Your task to perform on an android device: turn off smart reply in the gmail app Image 0: 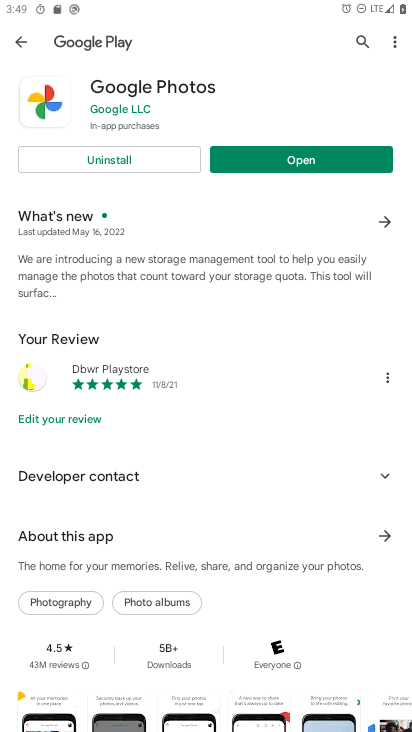
Step 0: press home button
Your task to perform on an android device: turn off smart reply in the gmail app Image 1: 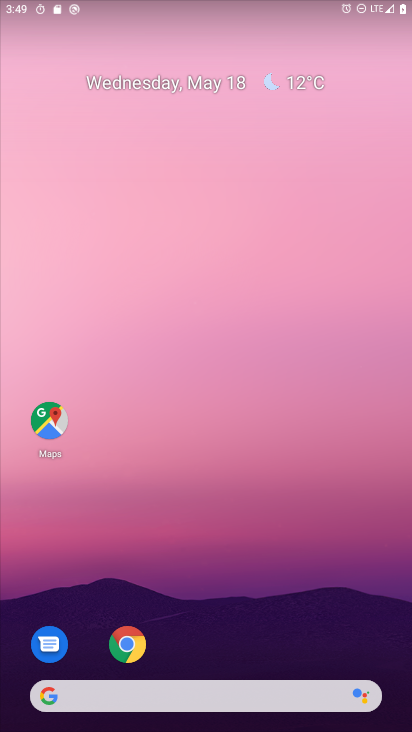
Step 1: drag from (373, 407) to (346, 144)
Your task to perform on an android device: turn off smart reply in the gmail app Image 2: 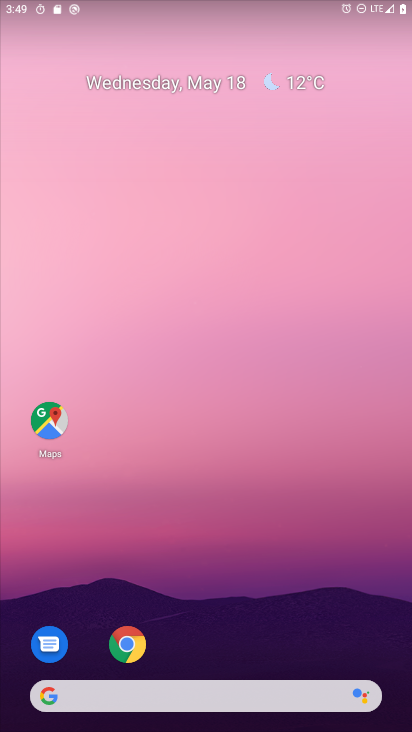
Step 2: drag from (399, 697) to (363, 134)
Your task to perform on an android device: turn off smart reply in the gmail app Image 3: 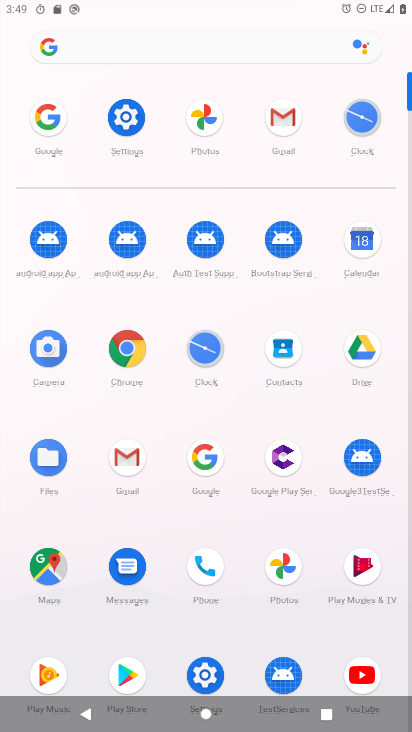
Step 3: click (266, 116)
Your task to perform on an android device: turn off smart reply in the gmail app Image 4: 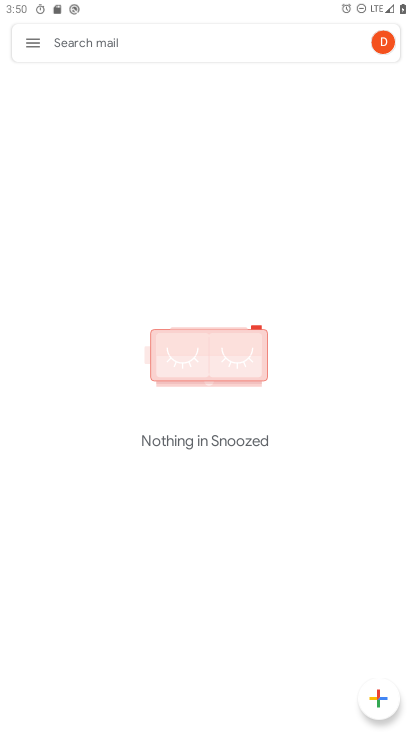
Step 4: click (33, 43)
Your task to perform on an android device: turn off smart reply in the gmail app Image 5: 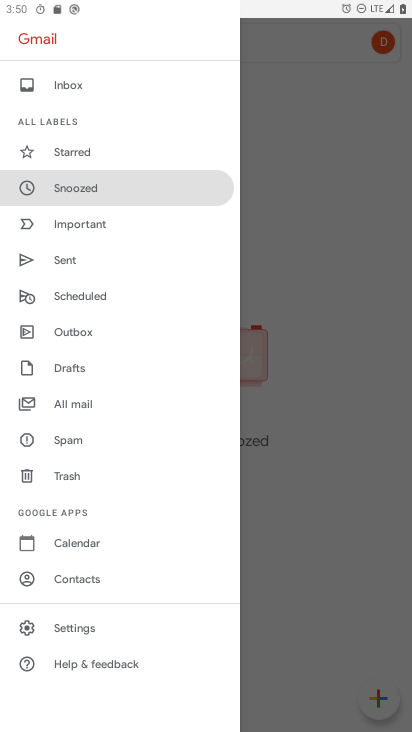
Step 5: click (80, 625)
Your task to perform on an android device: turn off smart reply in the gmail app Image 6: 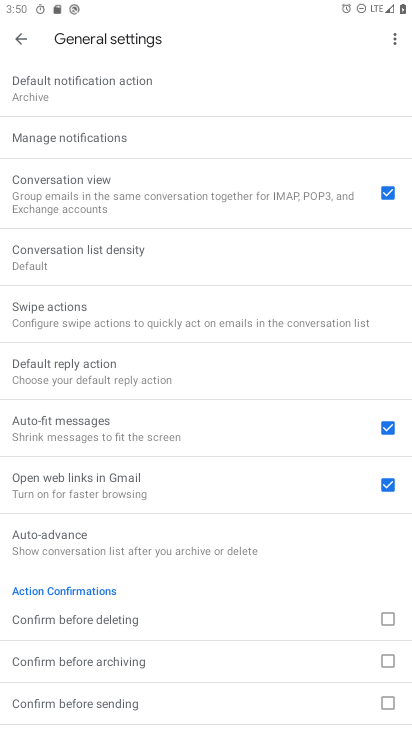
Step 6: click (15, 42)
Your task to perform on an android device: turn off smart reply in the gmail app Image 7: 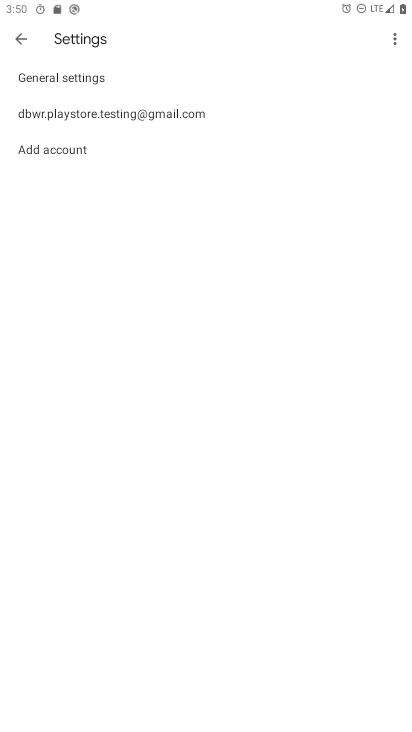
Step 7: click (18, 37)
Your task to perform on an android device: turn off smart reply in the gmail app Image 8: 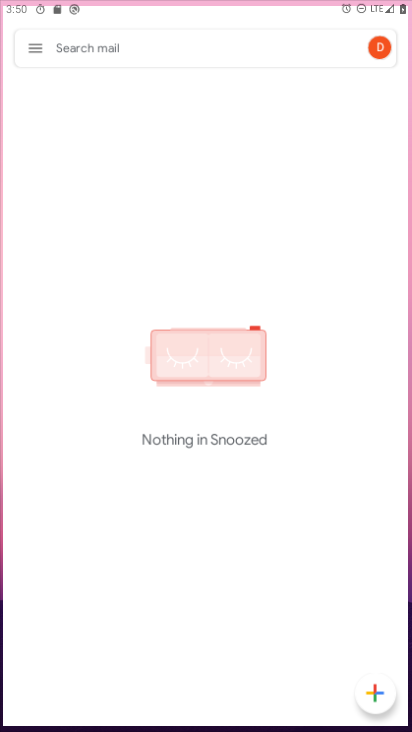
Step 8: click (49, 115)
Your task to perform on an android device: turn off smart reply in the gmail app Image 9: 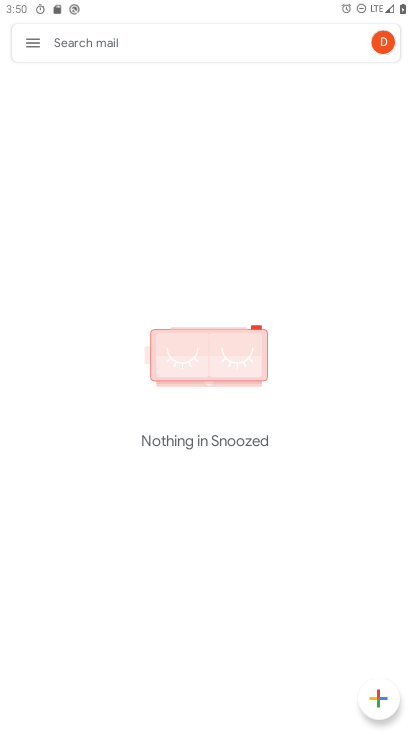
Step 9: click (31, 42)
Your task to perform on an android device: turn off smart reply in the gmail app Image 10: 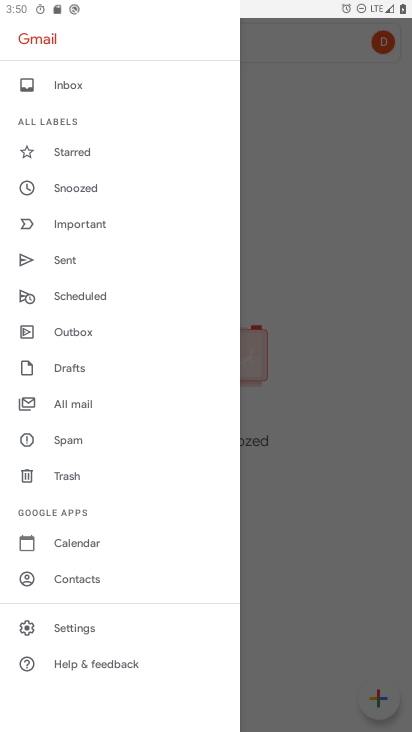
Step 10: click (70, 631)
Your task to perform on an android device: turn off smart reply in the gmail app Image 11: 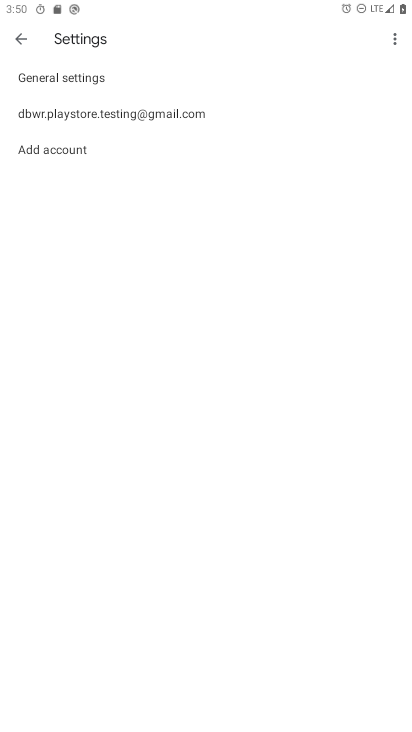
Step 11: click (72, 112)
Your task to perform on an android device: turn off smart reply in the gmail app Image 12: 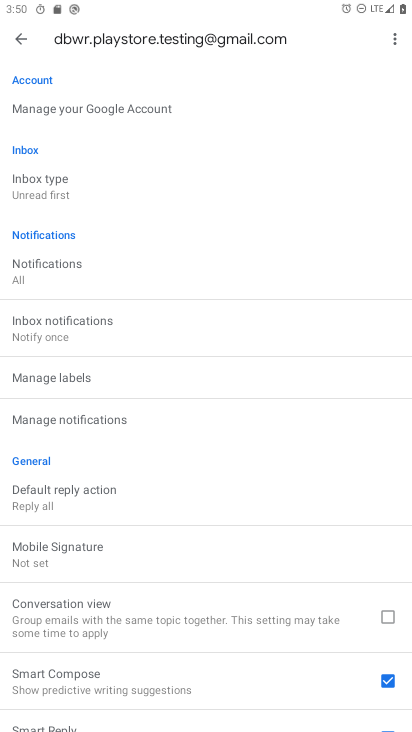
Step 12: drag from (163, 447) to (163, 413)
Your task to perform on an android device: turn off smart reply in the gmail app Image 13: 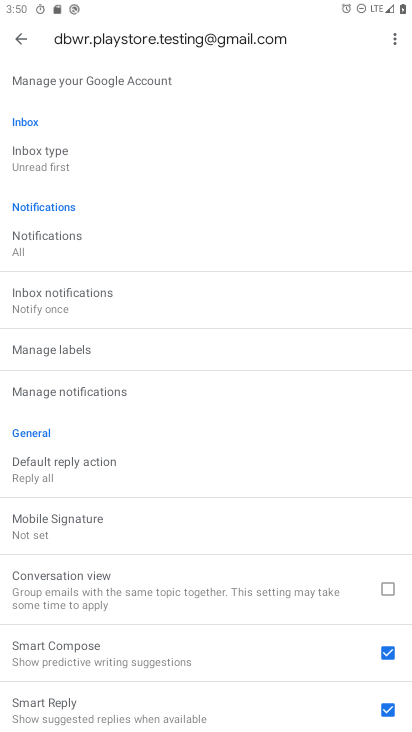
Step 13: click (382, 707)
Your task to perform on an android device: turn off smart reply in the gmail app Image 14: 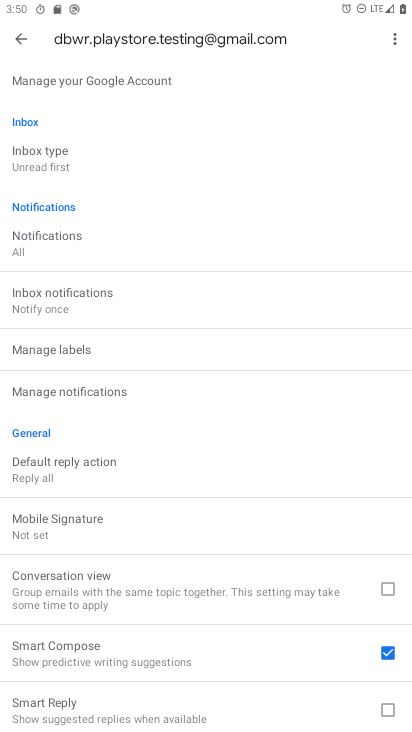
Step 14: task complete